Your task to perform on an android device: Find coffee shops on Maps Image 0: 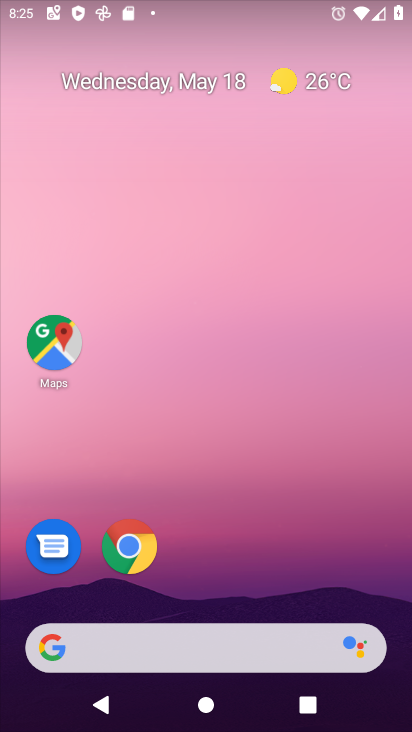
Step 0: drag from (388, 612) to (309, 169)
Your task to perform on an android device: Find coffee shops on Maps Image 1: 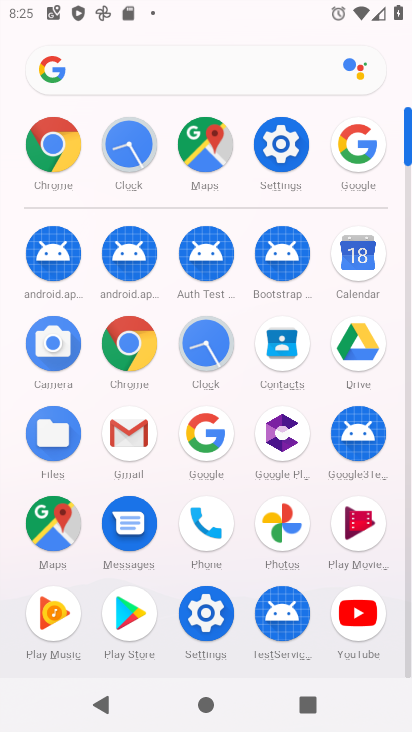
Step 1: click (203, 152)
Your task to perform on an android device: Find coffee shops on Maps Image 2: 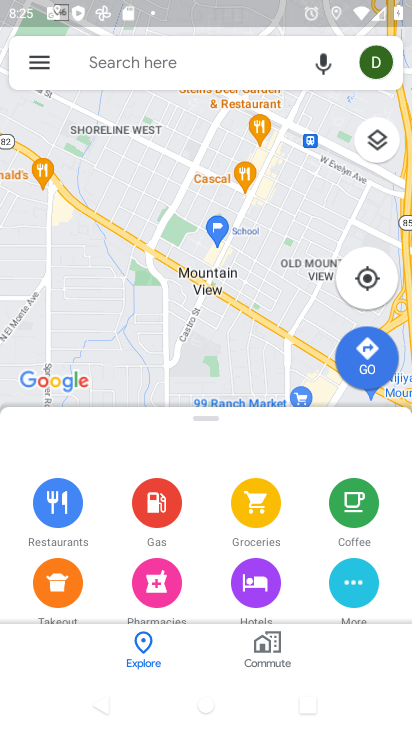
Step 2: click (211, 61)
Your task to perform on an android device: Find coffee shops on Maps Image 3: 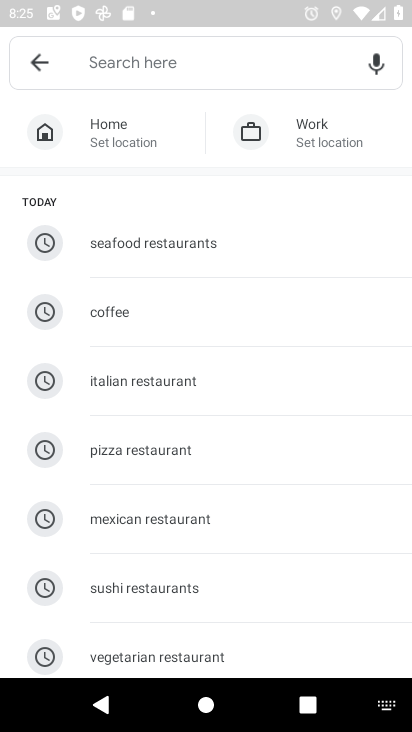
Step 3: click (108, 307)
Your task to perform on an android device: Find coffee shops on Maps Image 4: 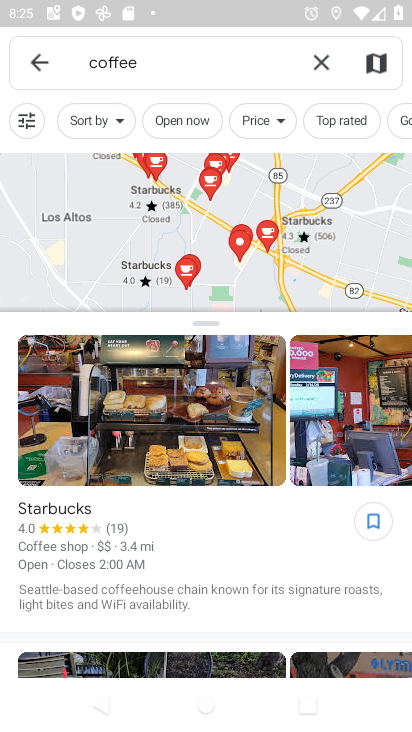
Step 4: task complete